Your task to perform on an android device: Show me popular videos on Youtube Image 0: 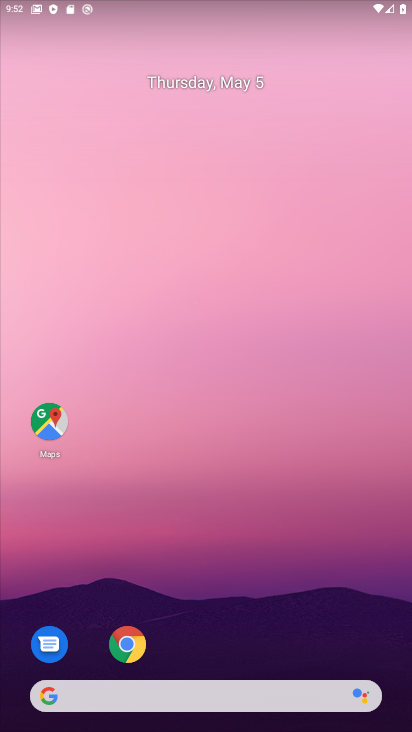
Step 0: click (202, 666)
Your task to perform on an android device: Show me popular videos on Youtube Image 1: 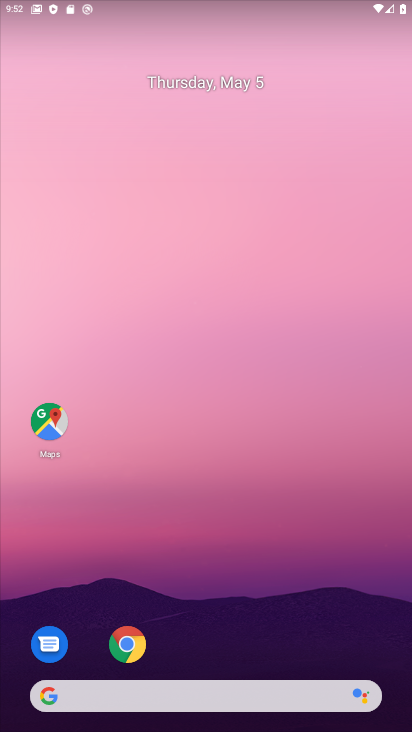
Step 1: click (202, 666)
Your task to perform on an android device: Show me popular videos on Youtube Image 2: 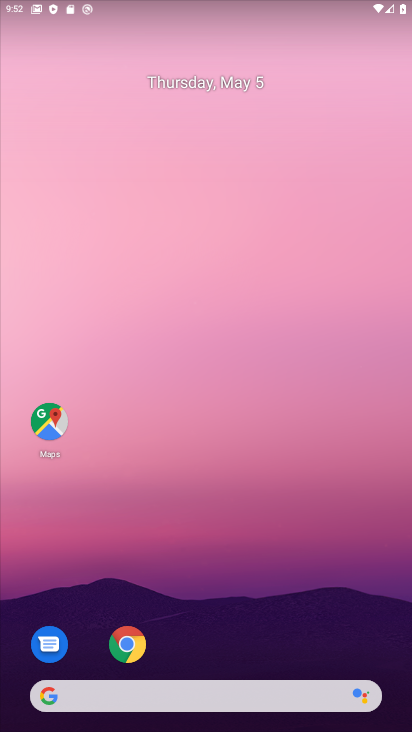
Step 2: click (202, 666)
Your task to perform on an android device: Show me popular videos on Youtube Image 3: 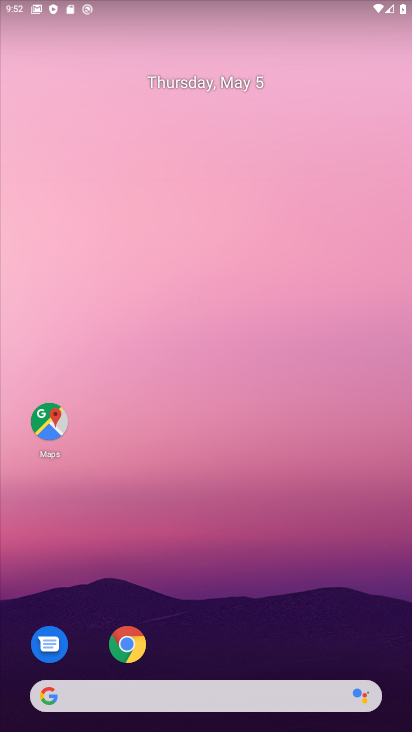
Step 3: click (202, 666)
Your task to perform on an android device: Show me popular videos on Youtube Image 4: 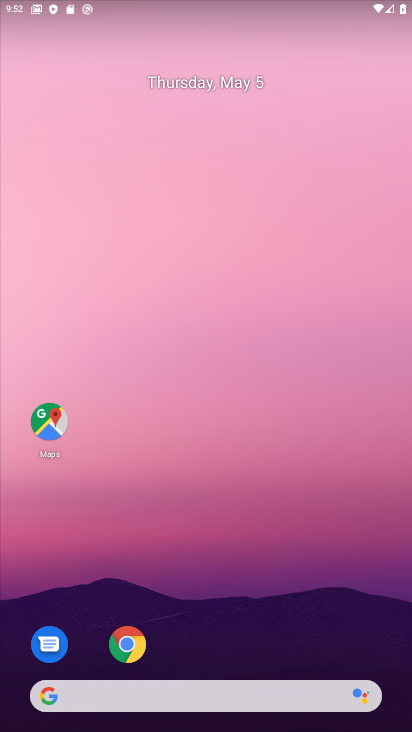
Step 4: click (202, 666)
Your task to perform on an android device: Show me popular videos on Youtube Image 5: 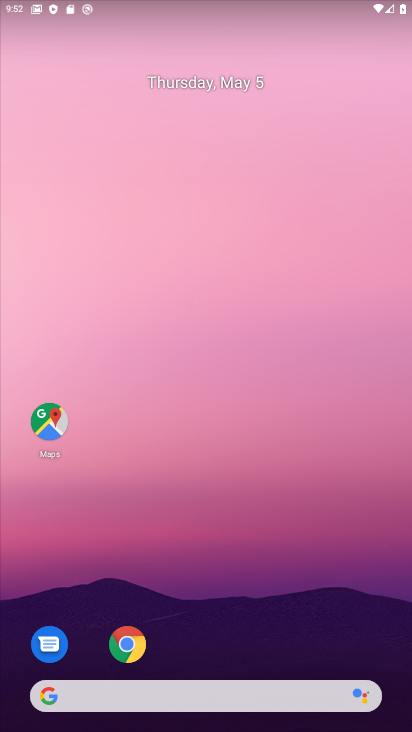
Step 5: click (202, 666)
Your task to perform on an android device: Show me popular videos on Youtube Image 6: 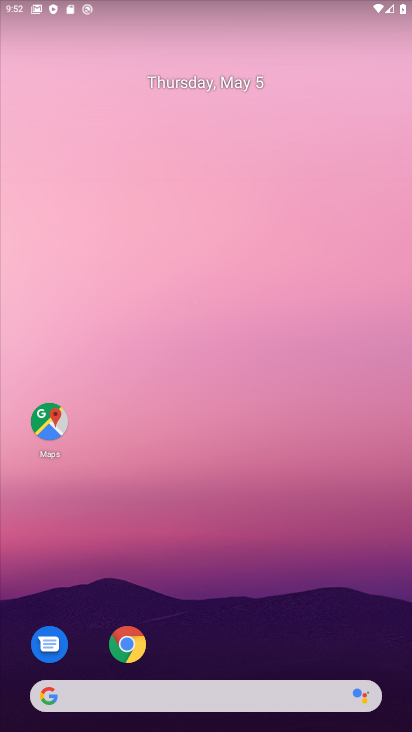
Step 6: click (202, 666)
Your task to perform on an android device: Show me popular videos on Youtube Image 7: 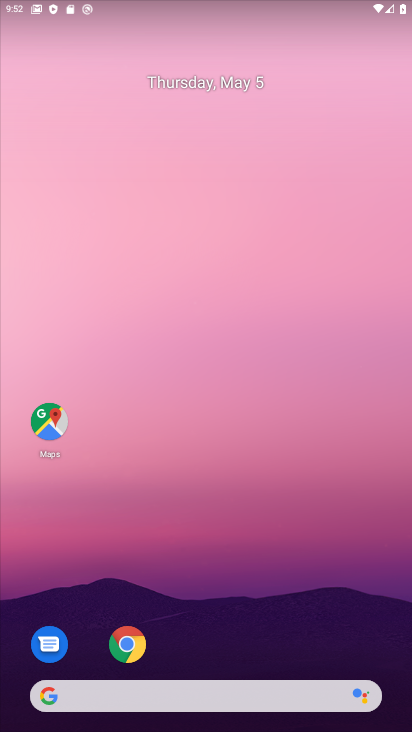
Step 7: click (202, 666)
Your task to perform on an android device: Show me popular videos on Youtube Image 8: 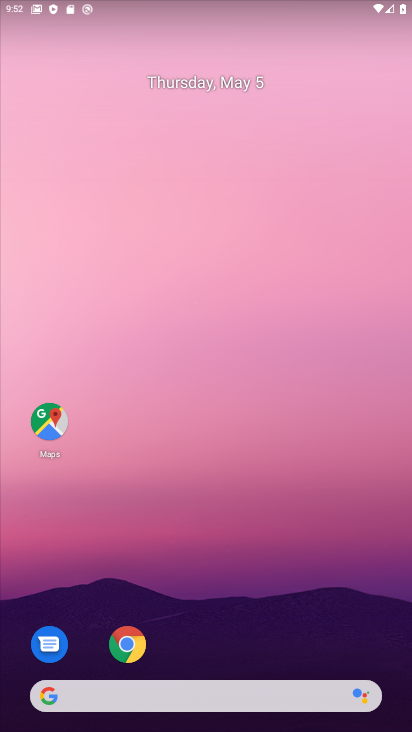
Step 8: drag from (202, 666) to (231, 105)
Your task to perform on an android device: Show me popular videos on Youtube Image 9: 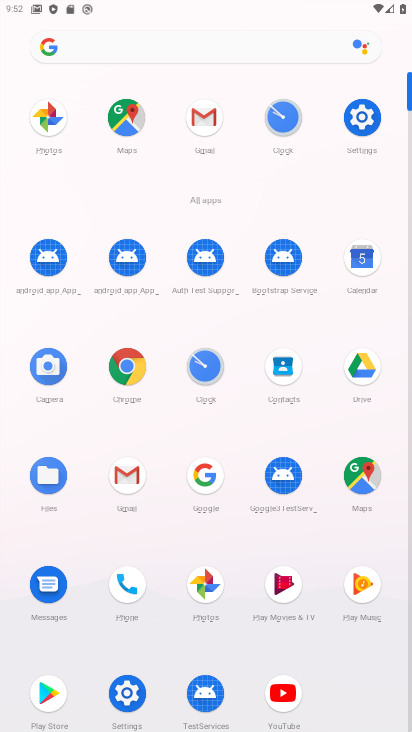
Step 9: click (295, 692)
Your task to perform on an android device: Show me popular videos on Youtube Image 10: 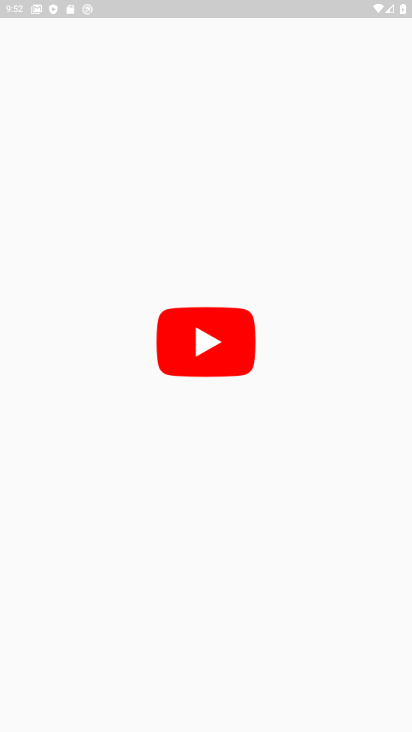
Step 10: click (295, 692)
Your task to perform on an android device: Show me popular videos on Youtube Image 11: 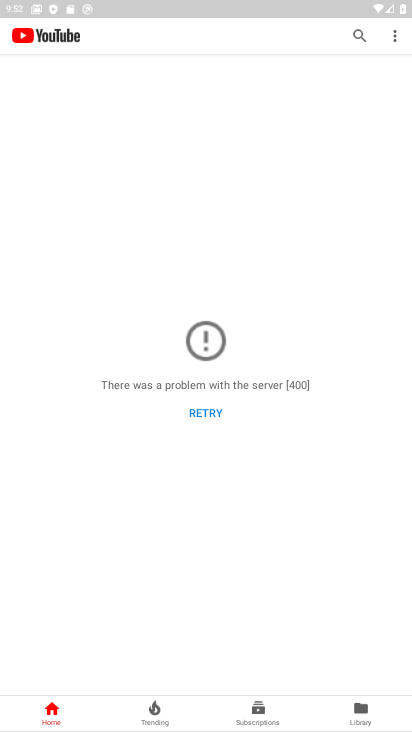
Step 11: click (261, 692)
Your task to perform on an android device: Show me popular videos on Youtube Image 12: 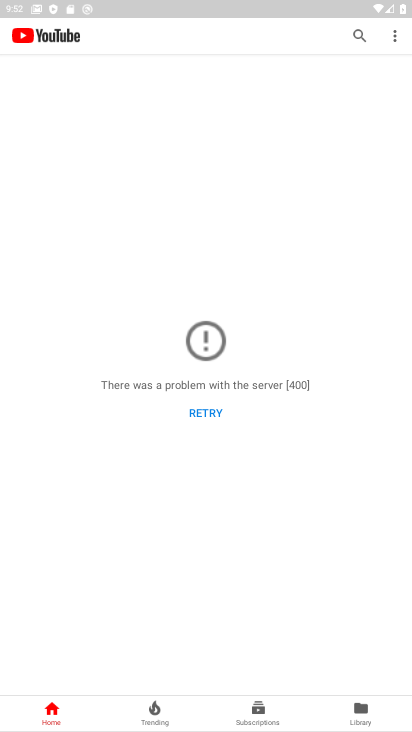
Step 12: click (358, 692)
Your task to perform on an android device: Show me popular videos on Youtube Image 13: 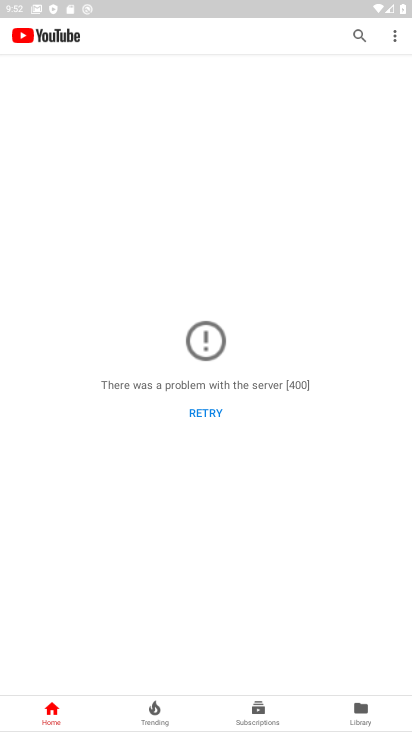
Step 13: drag from (358, 702) to (155, 695)
Your task to perform on an android device: Show me popular videos on Youtube Image 14: 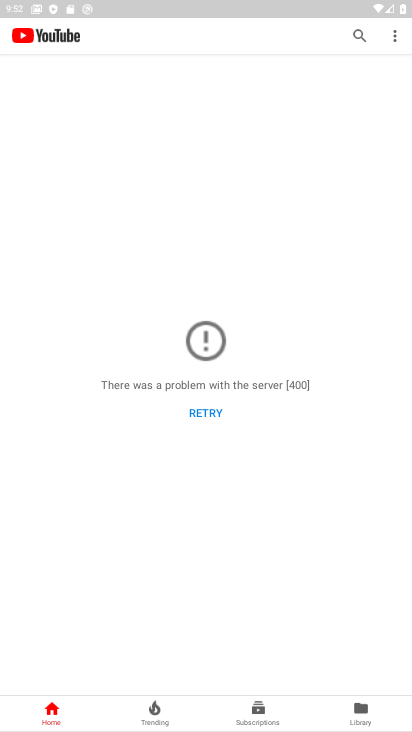
Step 14: click (155, 695)
Your task to perform on an android device: Show me popular videos on Youtube Image 15: 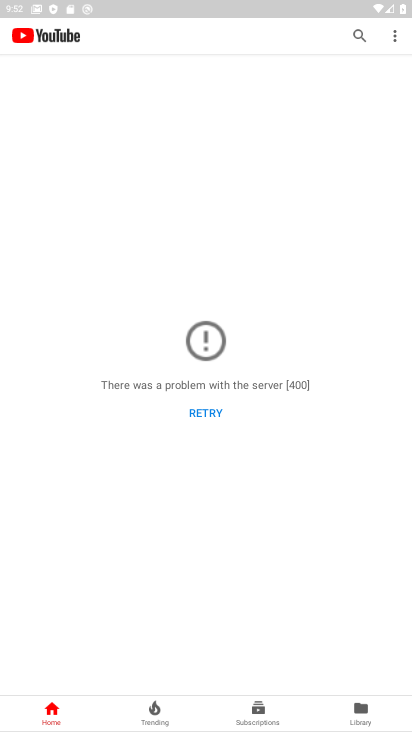
Step 15: click (154, 708)
Your task to perform on an android device: Show me popular videos on Youtube Image 16: 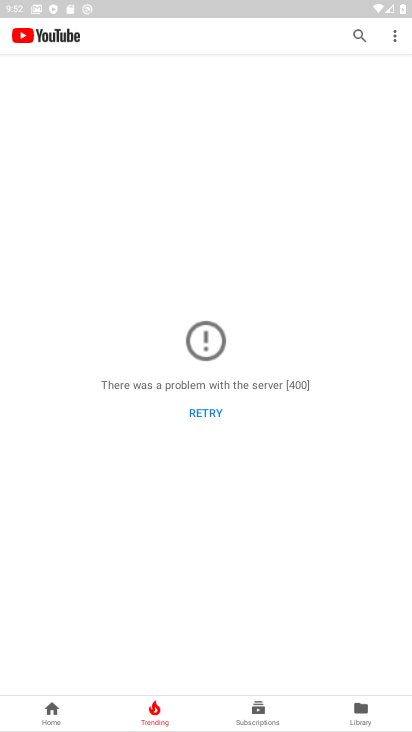
Step 16: task complete